Your task to perform on an android device: visit the assistant section in the google photos Image 0: 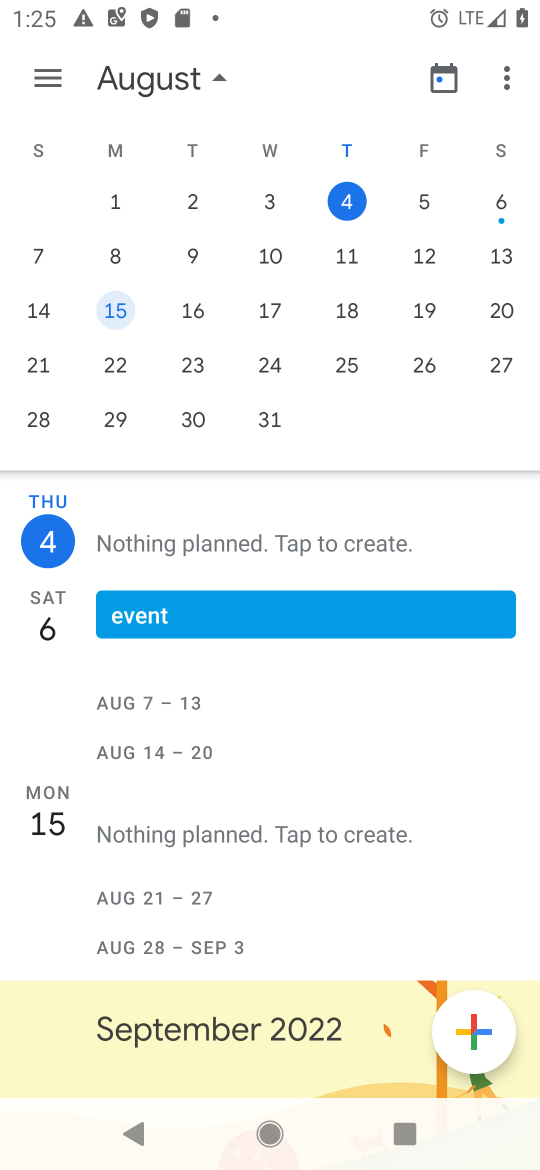
Step 0: press home button
Your task to perform on an android device: visit the assistant section in the google photos Image 1: 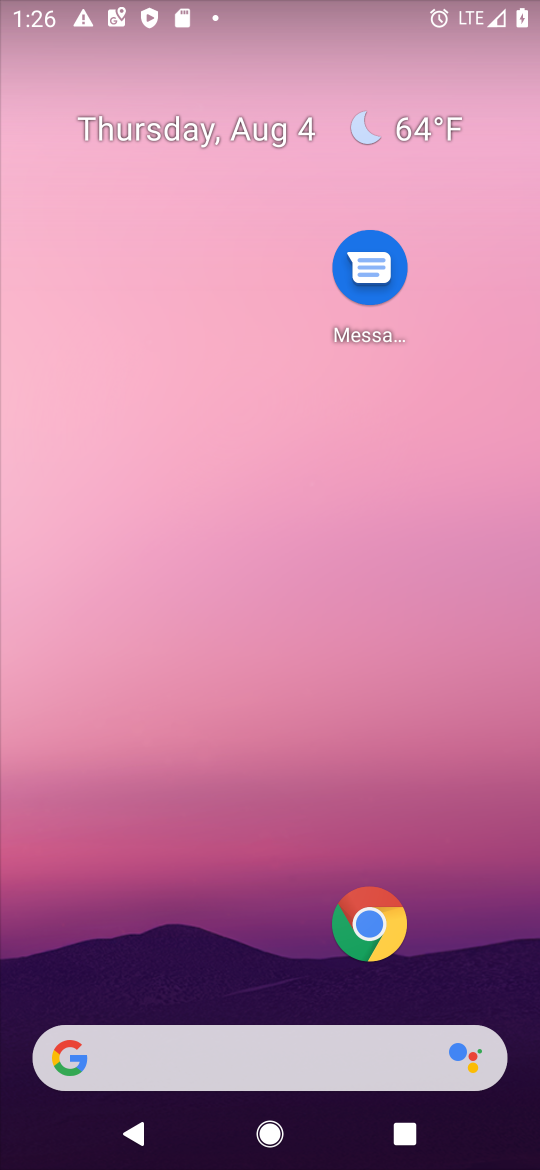
Step 1: drag from (36, 1119) to (344, 389)
Your task to perform on an android device: visit the assistant section in the google photos Image 2: 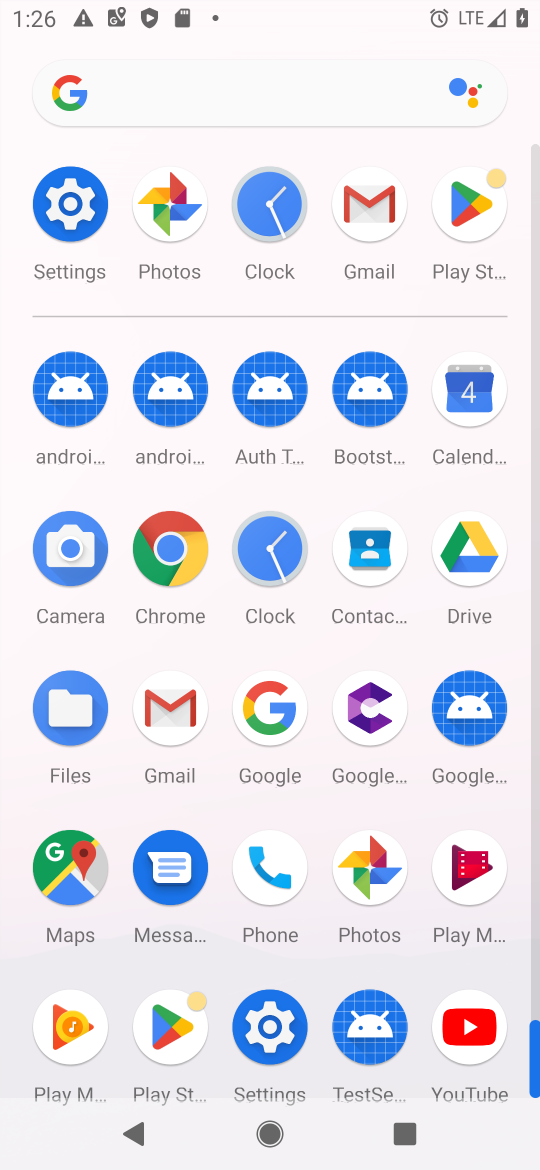
Step 2: click (365, 848)
Your task to perform on an android device: visit the assistant section in the google photos Image 3: 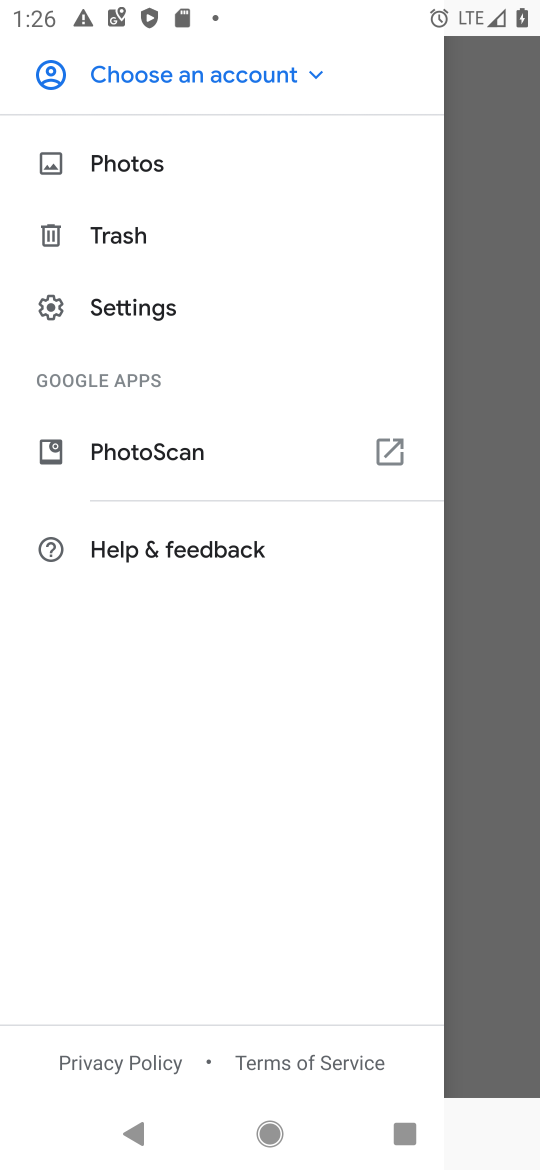
Step 3: click (497, 816)
Your task to perform on an android device: visit the assistant section in the google photos Image 4: 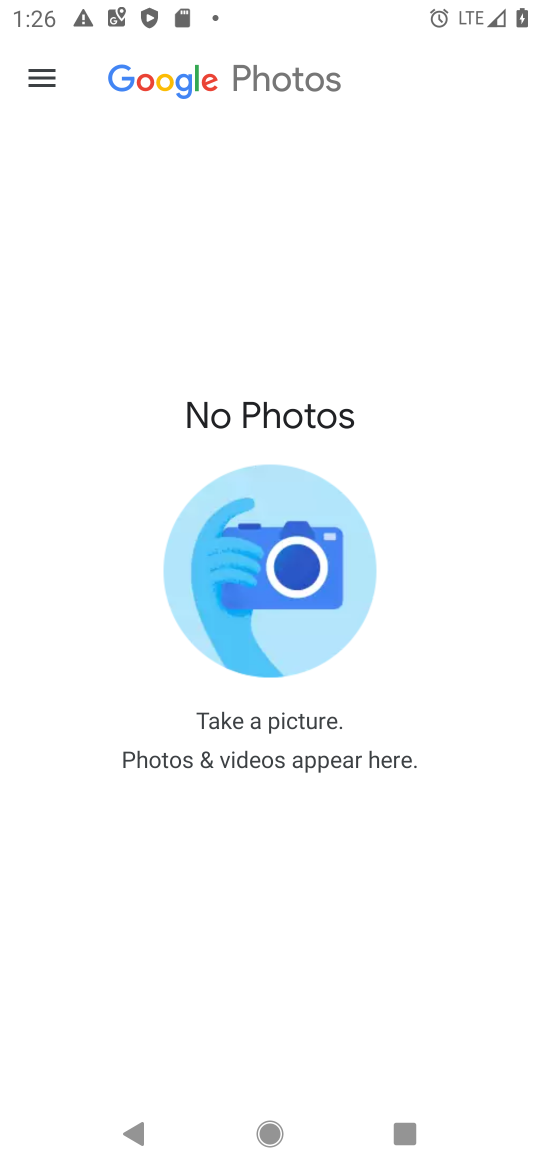
Step 4: task complete